Your task to perform on an android device: Check the news Image 0: 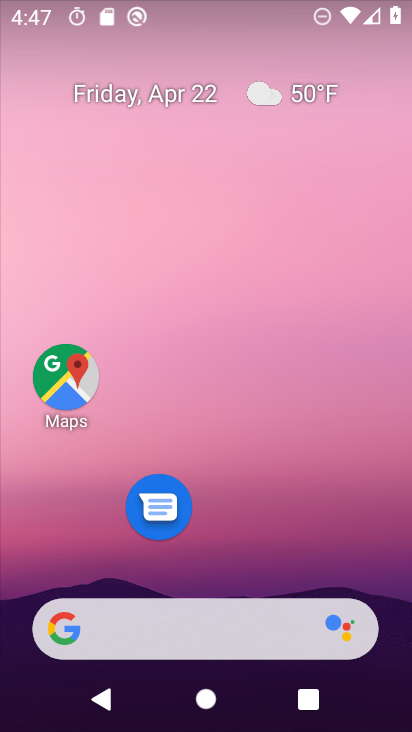
Step 0: drag from (136, 604) to (251, 87)
Your task to perform on an android device: Check the news Image 1: 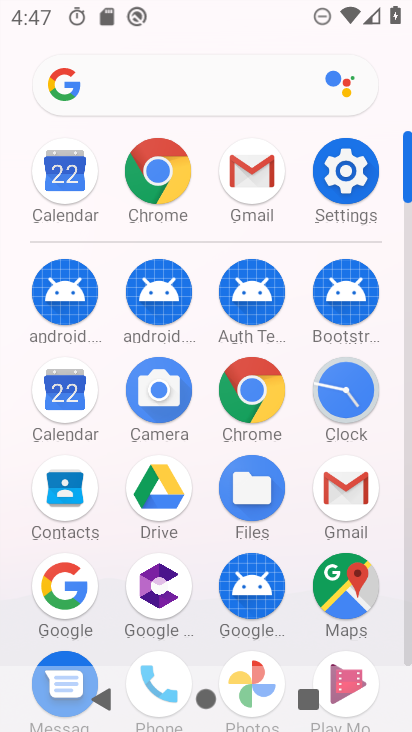
Step 1: click (183, 89)
Your task to perform on an android device: Check the news Image 2: 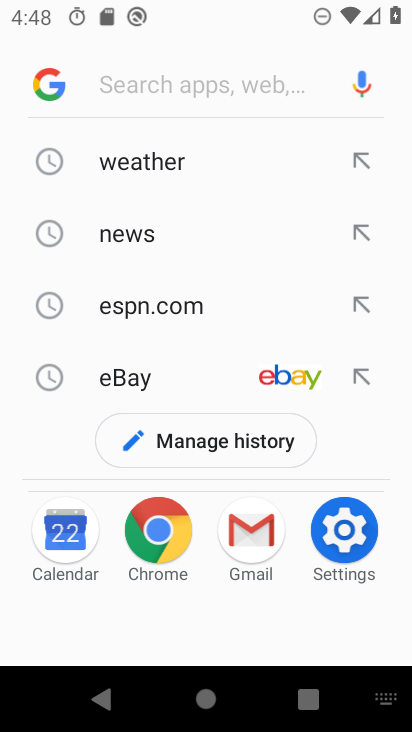
Step 2: click (171, 238)
Your task to perform on an android device: Check the news Image 3: 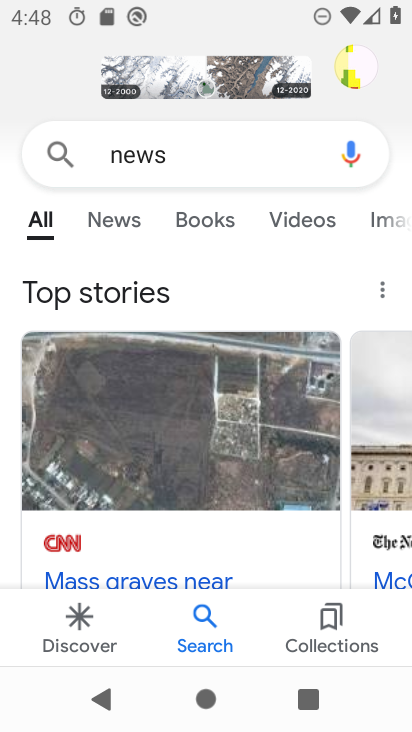
Step 3: task complete